Your task to perform on an android device: What is the recent news? Image 0: 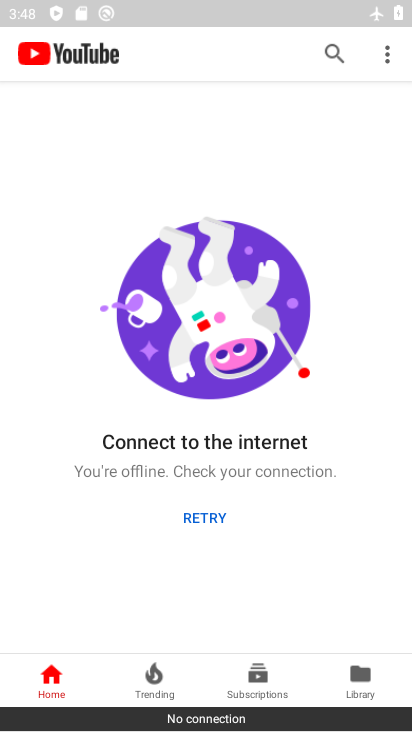
Step 0: press home button
Your task to perform on an android device: What is the recent news? Image 1: 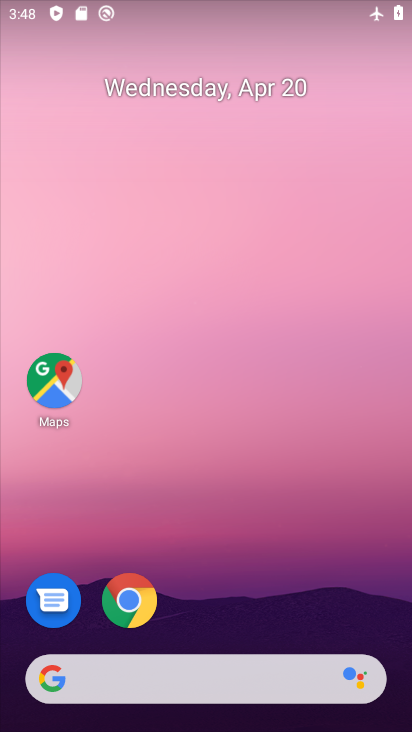
Step 1: task complete